Your task to perform on an android device: See recent photos Image 0: 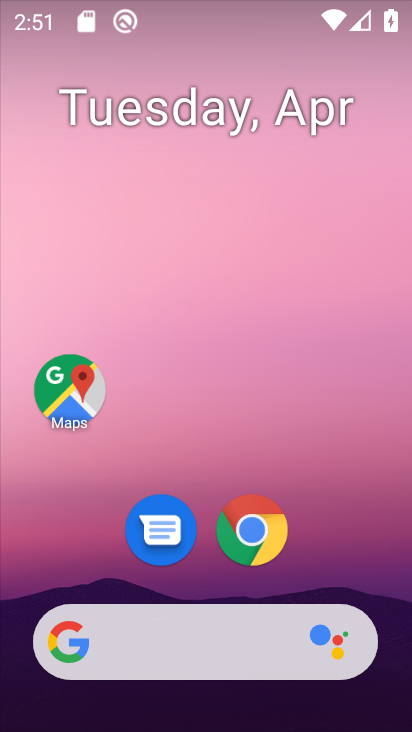
Step 0: drag from (215, 725) to (208, 54)
Your task to perform on an android device: See recent photos Image 1: 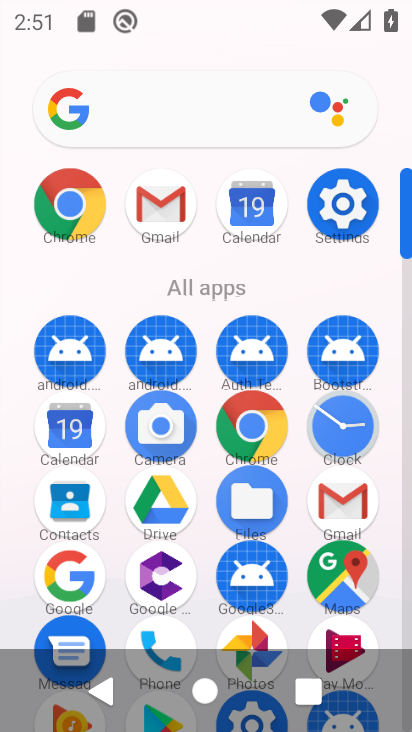
Step 1: drag from (198, 631) to (206, 109)
Your task to perform on an android device: See recent photos Image 2: 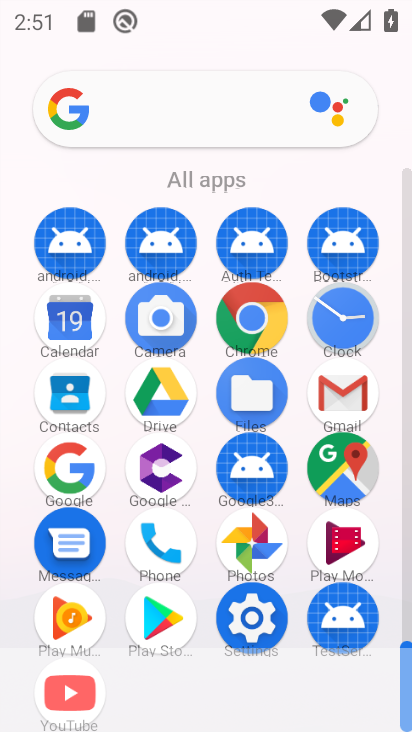
Step 2: click (251, 544)
Your task to perform on an android device: See recent photos Image 3: 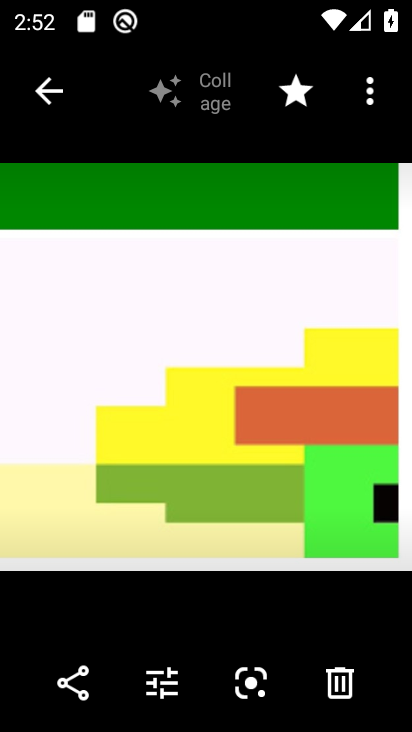
Step 3: task complete